Your task to perform on an android device: open a new tab in the chrome app Image 0: 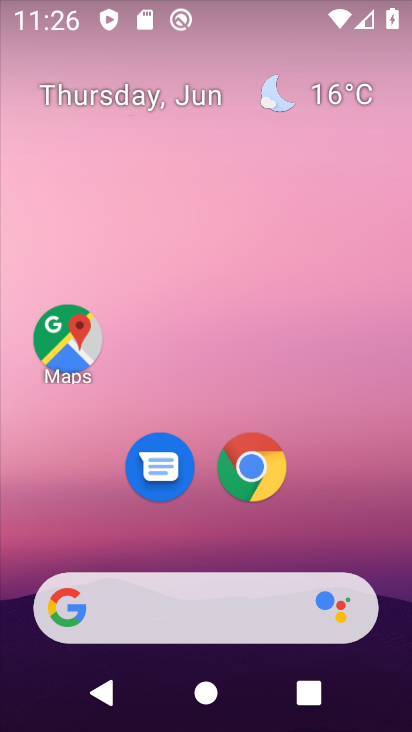
Step 0: click (257, 464)
Your task to perform on an android device: open a new tab in the chrome app Image 1: 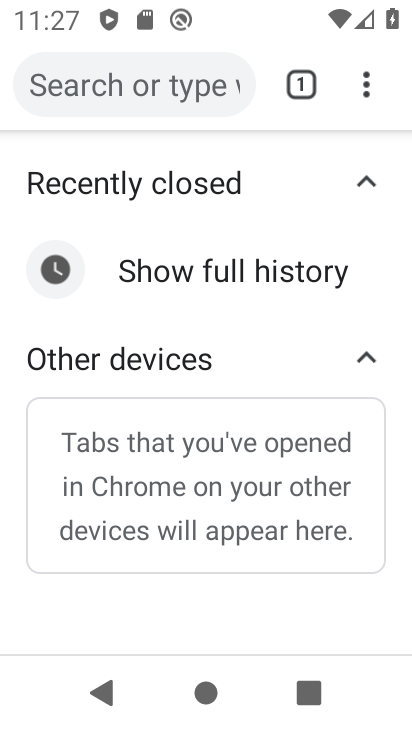
Step 1: click (365, 91)
Your task to perform on an android device: open a new tab in the chrome app Image 2: 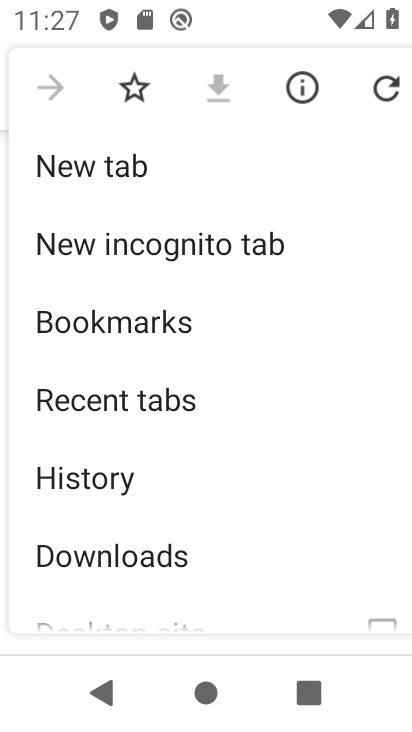
Step 2: click (80, 158)
Your task to perform on an android device: open a new tab in the chrome app Image 3: 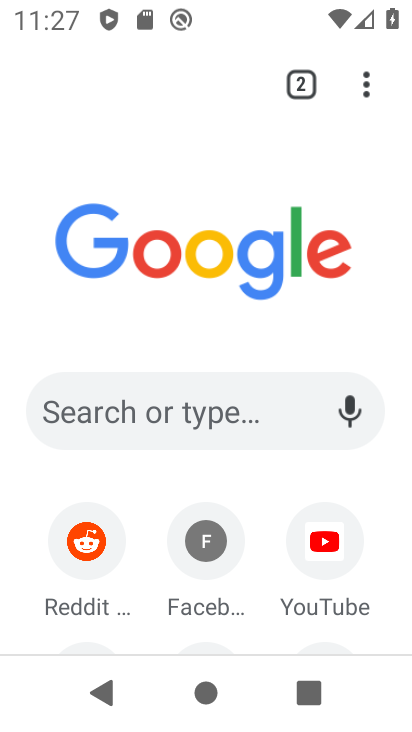
Step 3: task complete